Your task to perform on an android device: When is my next appointment? Image 0: 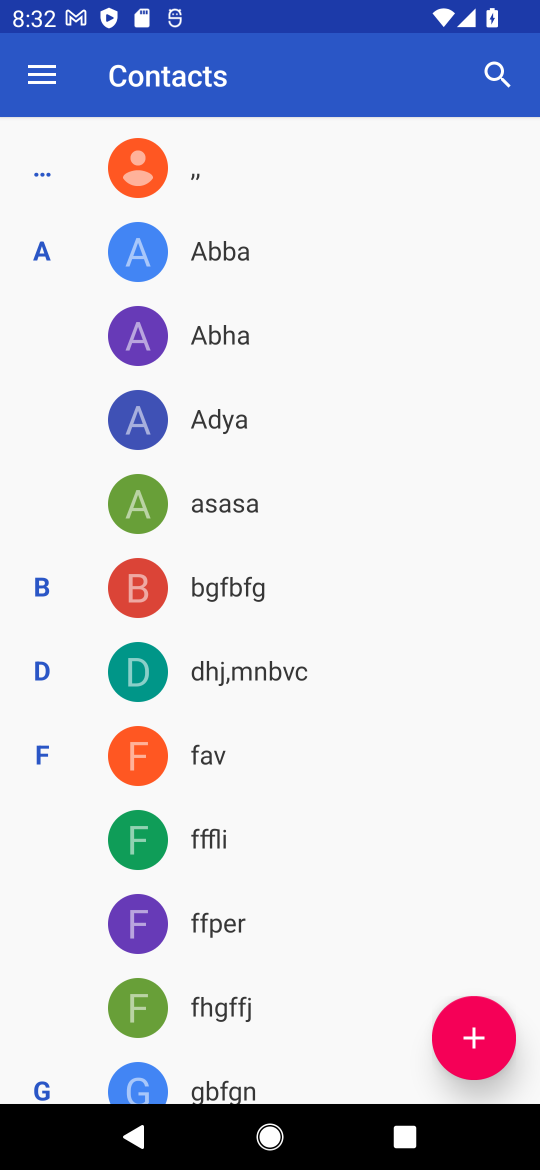
Step 0: press home button
Your task to perform on an android device: When is my next appointment? Image 1: 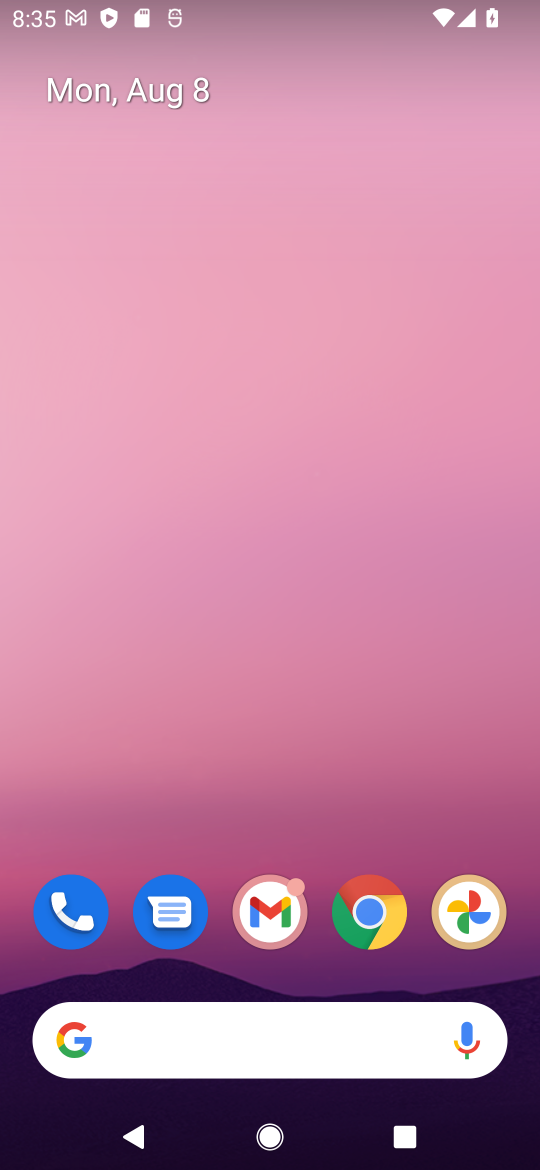
Step 1: drag from (401, 959) to (307, 48)
Your task to perform on an android device: When is my next appointment? Image 2: 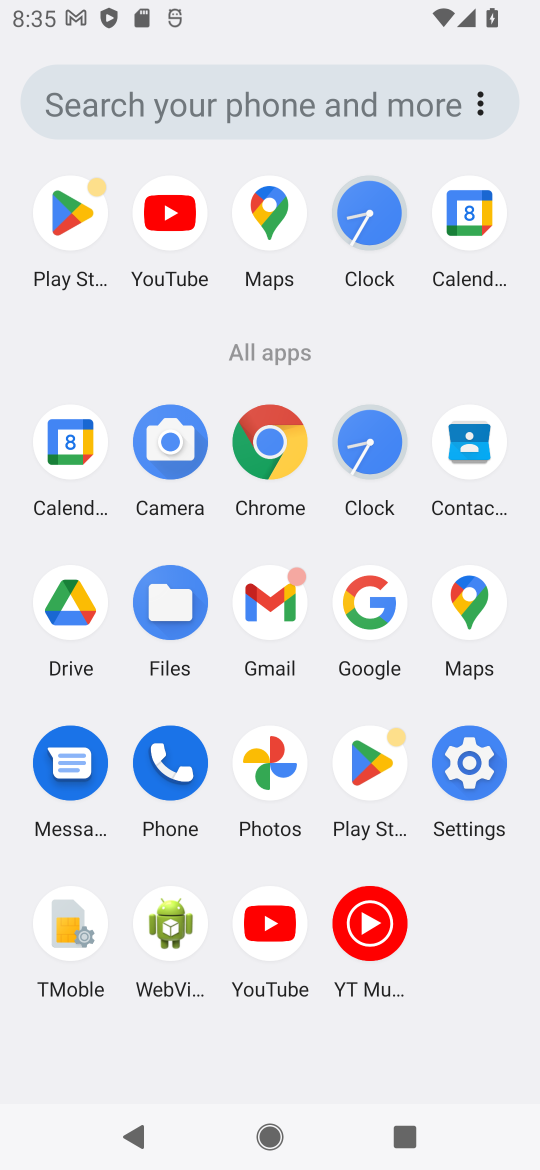
Step 2: click (469, 252)
Your task to perform on an android device: When is my next appointment? Image 3: 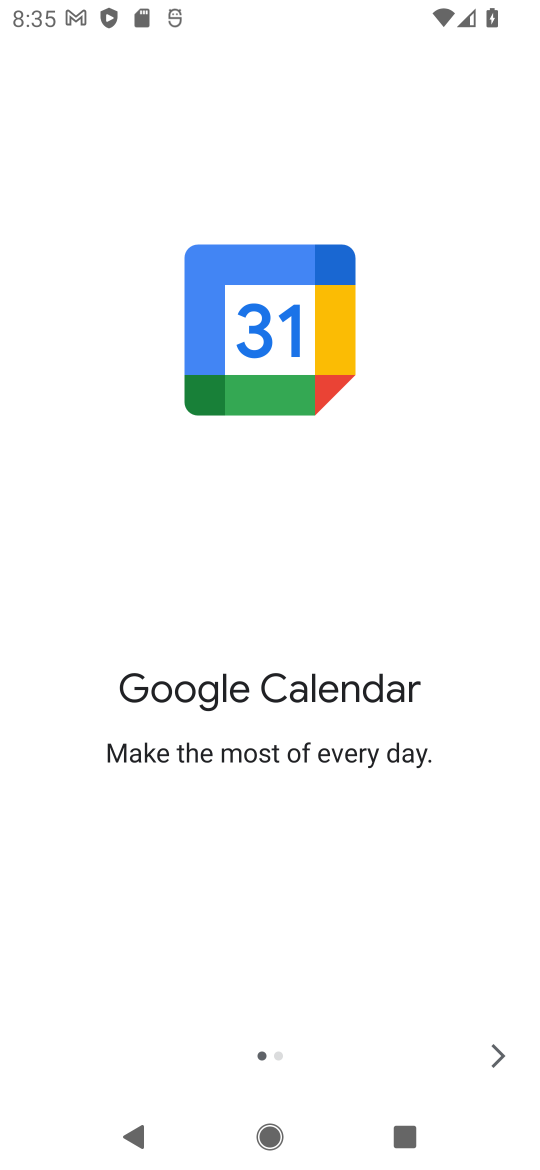
Step 3: click (501, 1049)
Your task to perform on an android device: When is my next appointment? Image 4: 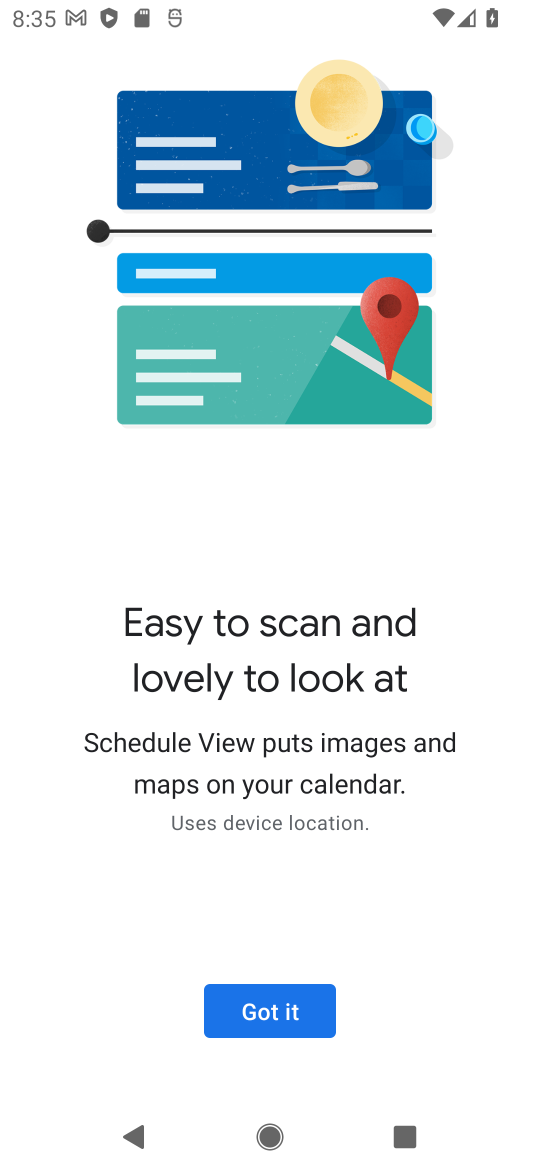
Step 4: click (501, 1049)
Your task to perform on an android device: When is my next appointment? Image 5: 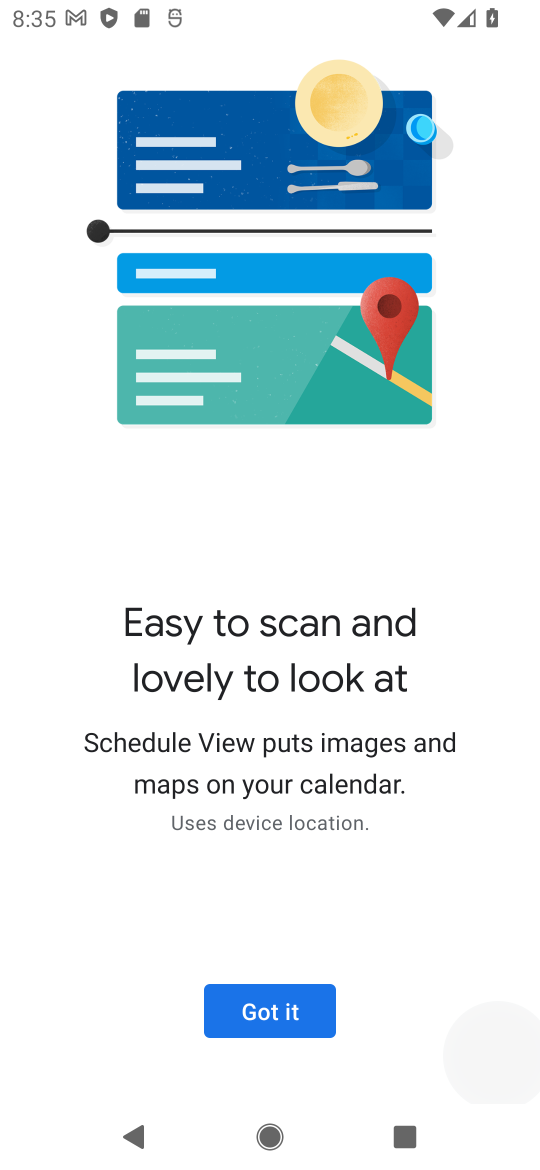
Step 5: click (282, 1018)
Your task to perform on an android device: When is my next appointment? Image 6: 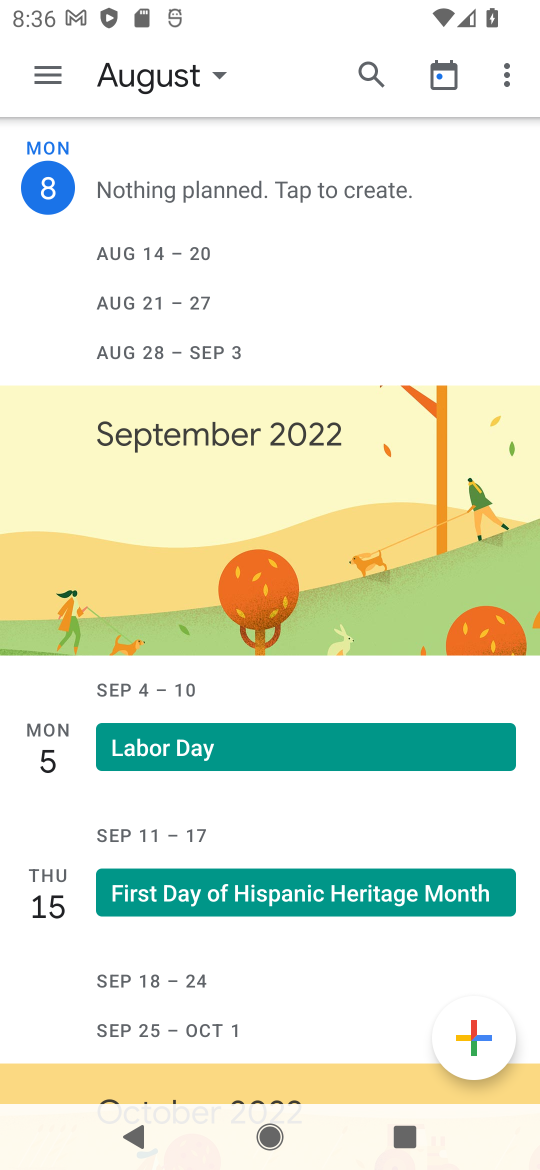
Step 6: task complete